Your task to perform on an android device: turn off notifications in google photos Image 0: 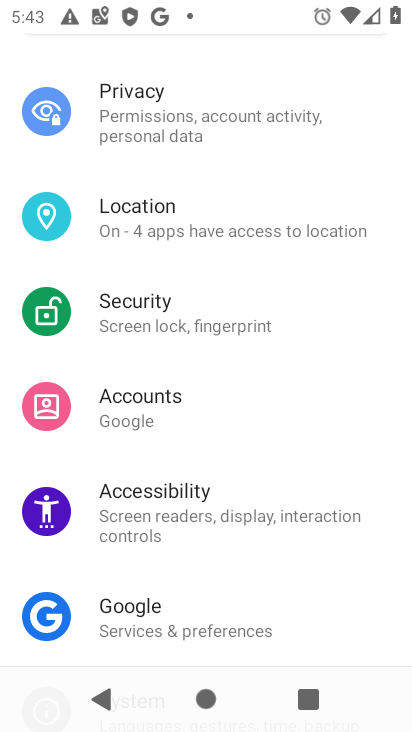
Step 0: press home button
Your task to perform on an android device: turn off notifications in google photos Image 1: 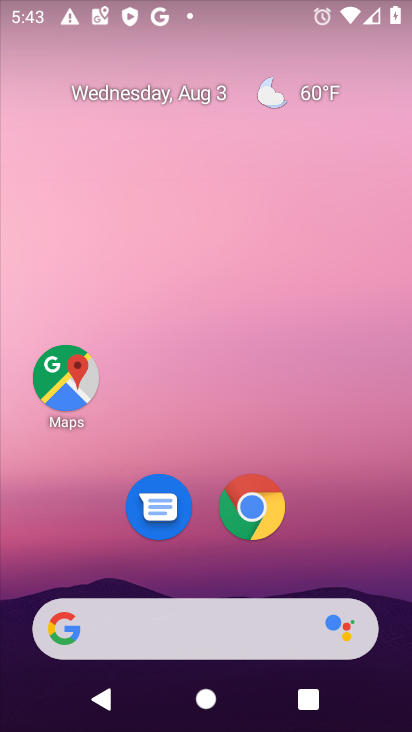
Step 1: drag from (358, 545) to (361, 91)
Your task to perform on an android device: turn off notifications in google photos Image 2: 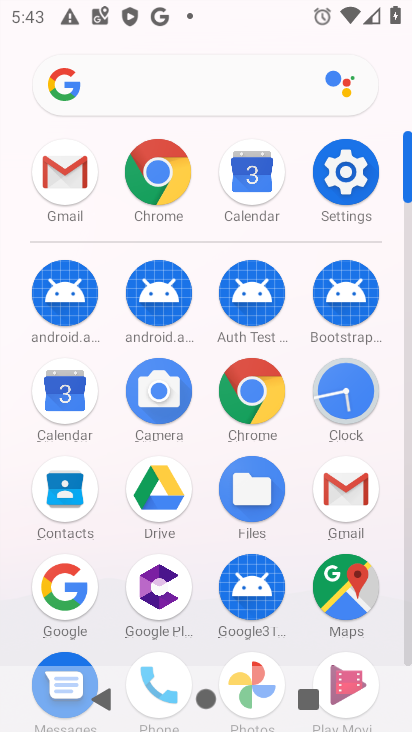
Step 2: drag from (206, 499) to (249, 183)
Your task to perform on an android device: turn off notifications in google photos Image 3: 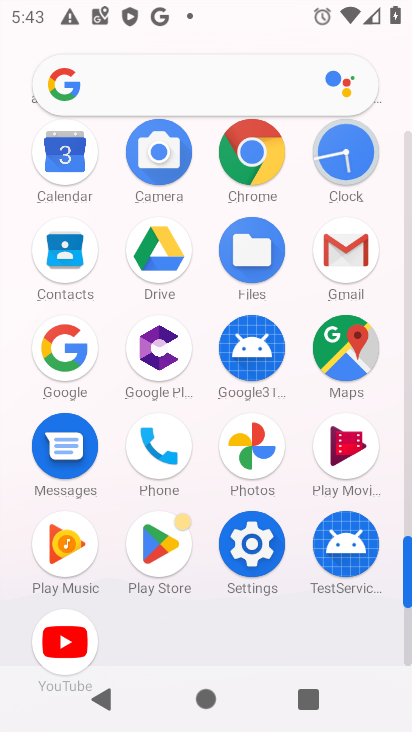
Step 3: click (256, 451)
Your task to perform on an android device: turn off notifications in google photos Image 4: 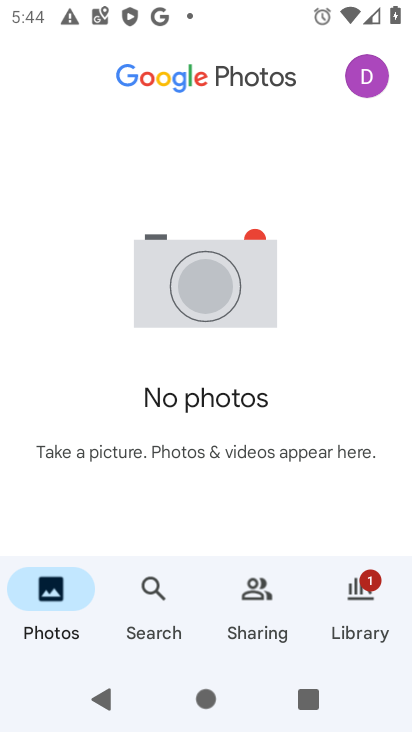
Step 4: click (357, 83)
Your task to perform on an android device: turn off notifications in google photos Image 5: 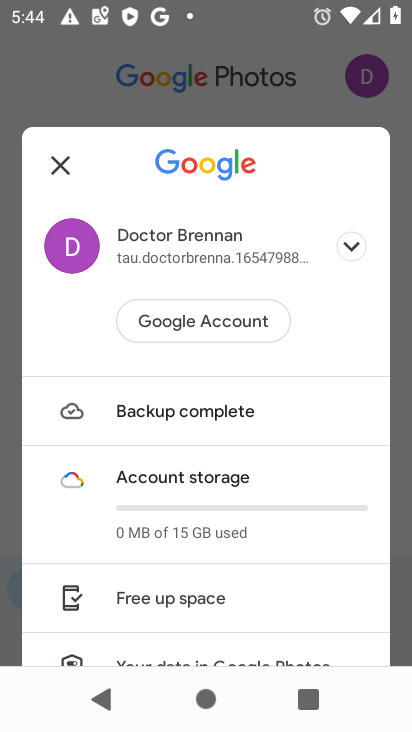
Step 5: drag from (261, 570) to (314, 162)
Your task to perform on an android device: turn off notifications in google photos Image 6: 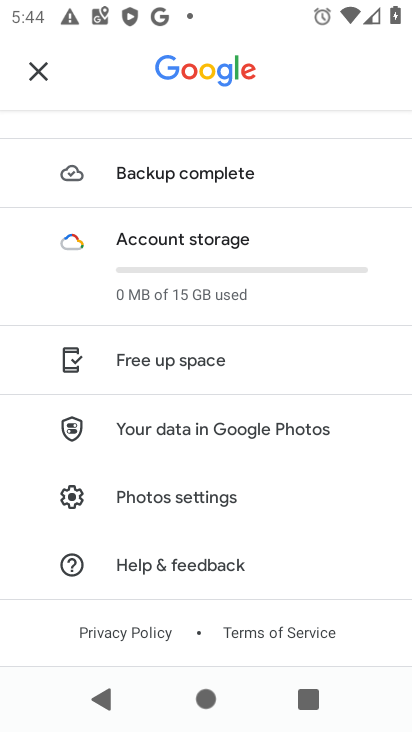
Step 6: click (218, 505)
Your task to perform on an android device: turn off notifications in google photos Image 7: 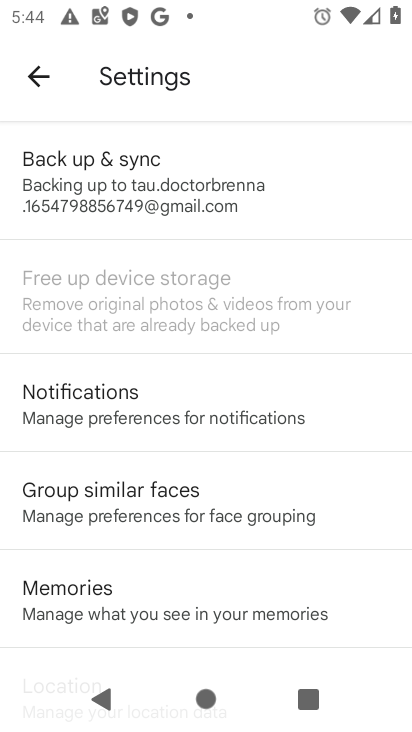
Step 7: click (127, 396)
Your task to perform on an android device: turn off notifications in google photos Image 8: 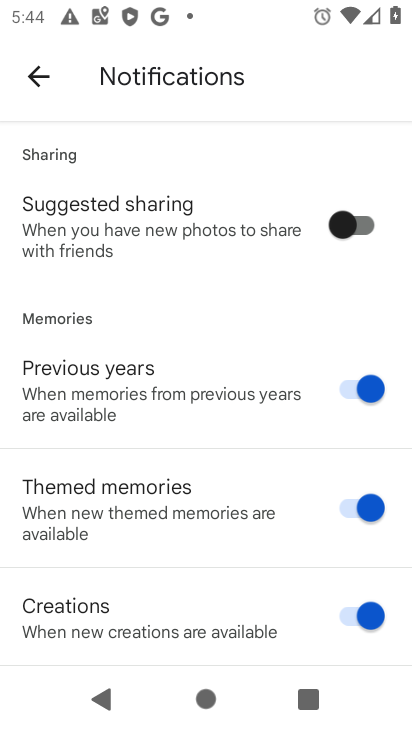
Step 8: drag from (179, 537) to (255, 50)
Your task to perform on an android device: turn off notifications in google photos Image 9: 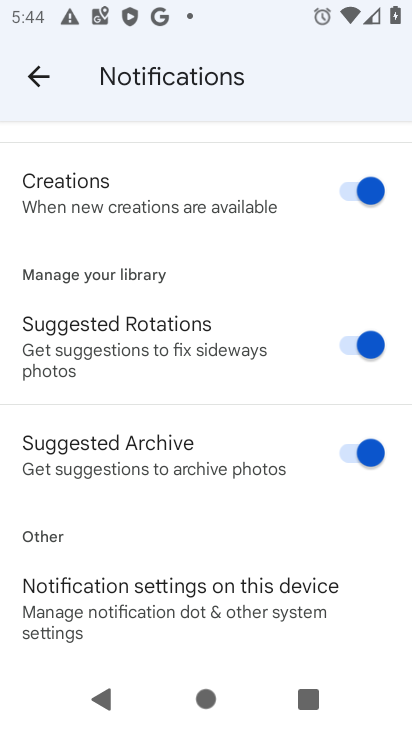
Step 9: drag from (185, 539) to (231, 129)
Your task to perform on an android device: turn off notifications in google photos Image 10: 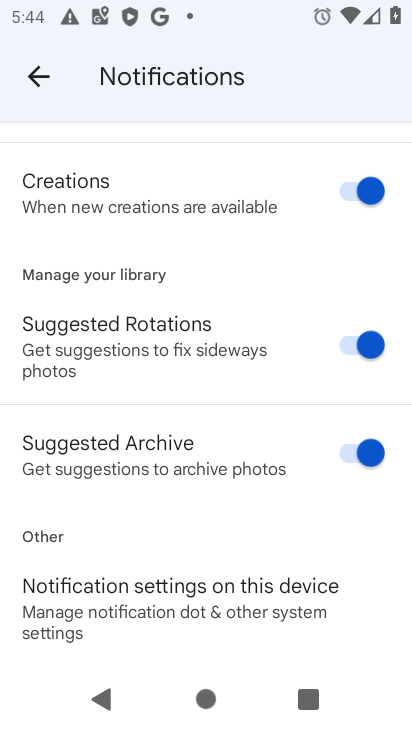
Step 10: click (205, 618)
Your task to perform on an android device: turn off notifications in google photos Image 11: 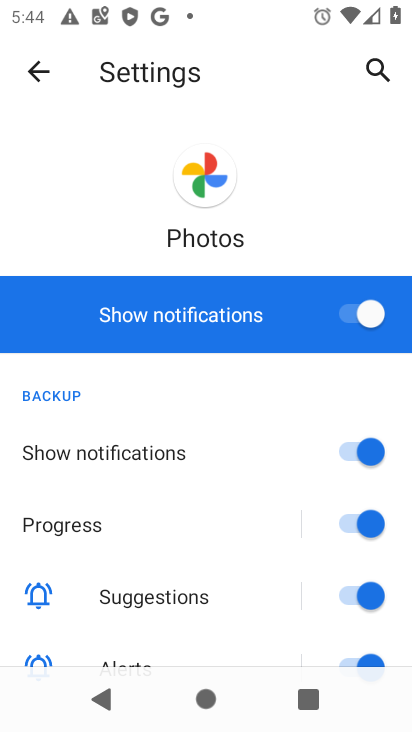
Step 11: click (349, 314)
Your task to perform on an android device: turn off notifications in google photos Image 12: 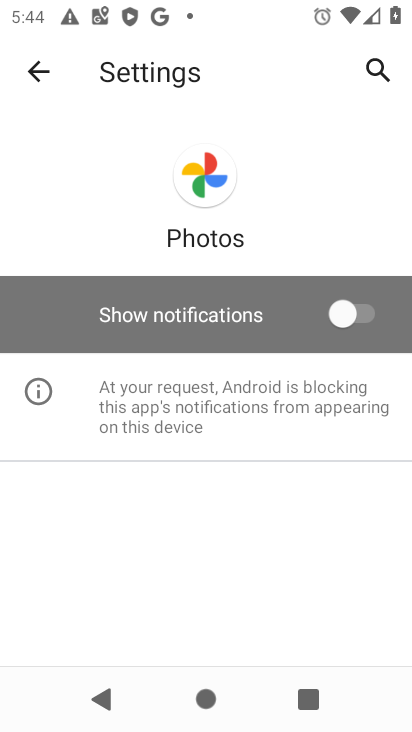
Step 12: task complete